Your task to perform on an android device: toggle sleep mode Image 0: 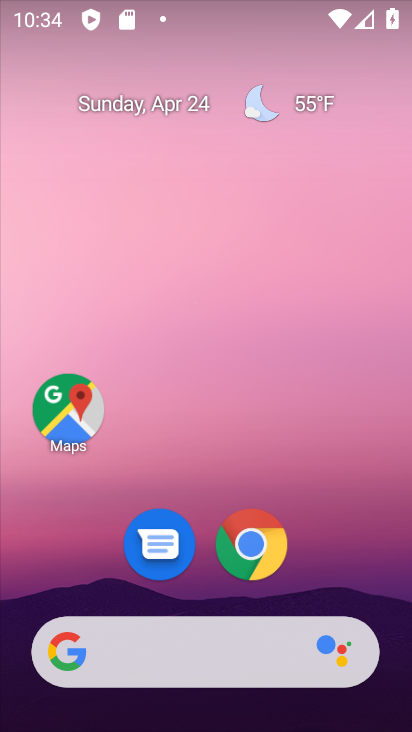
Step 0: drag from (330, 546) to (330, 73)
Your task to perform on an android device: toggle sleep mode Image 1: 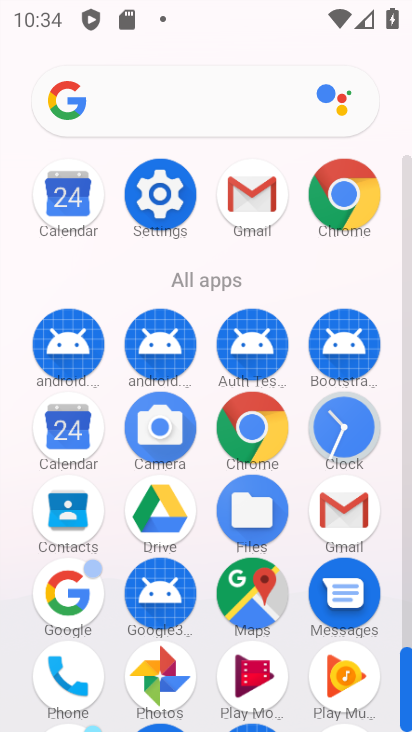
Step 1: click (151, 192)
Your task to perform on an android device: toggle sleep mode Image 2: 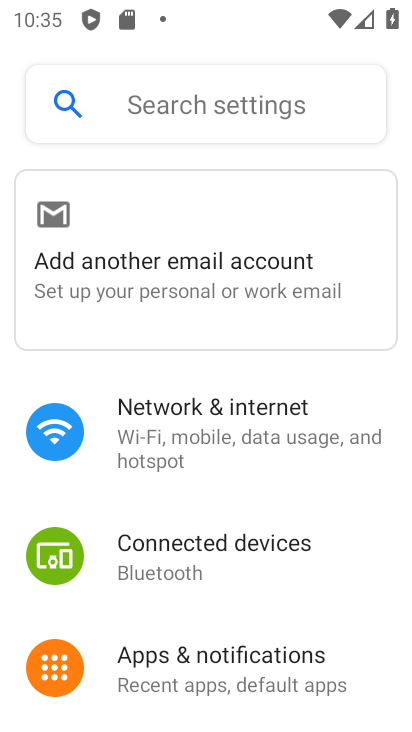
Step 2: drag from (286, 652) to (281, 162)
Your task to perform on an android device: toggle sleep mode Image 3: 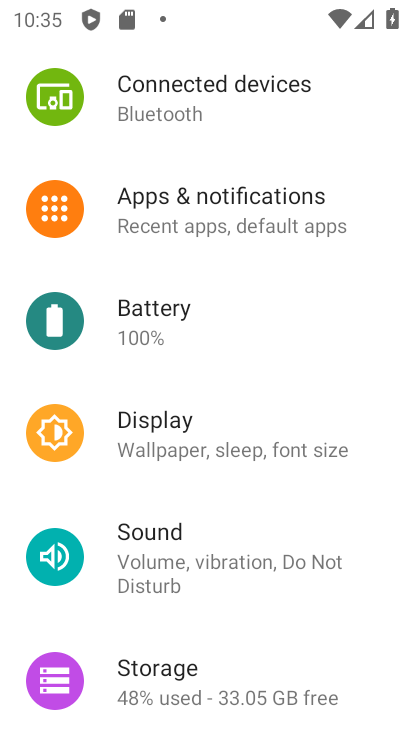
Step 3: click (171, 437)
Your task to perform on an android device: toggle sleep mode Image 4: 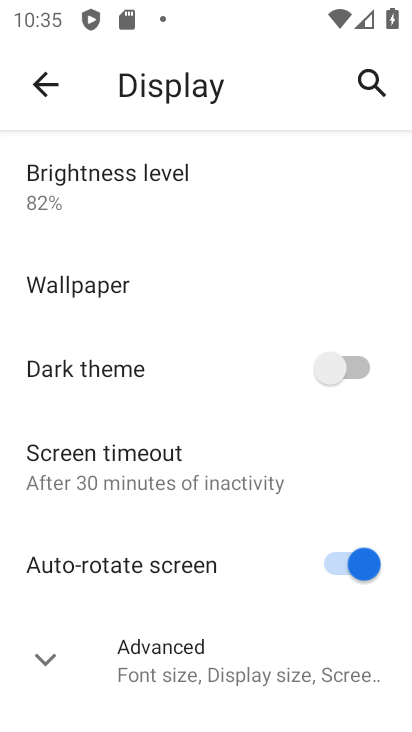
Step 4: click (171, 667)
Your task to perform on an android device: toggle sleep mode Image 5: 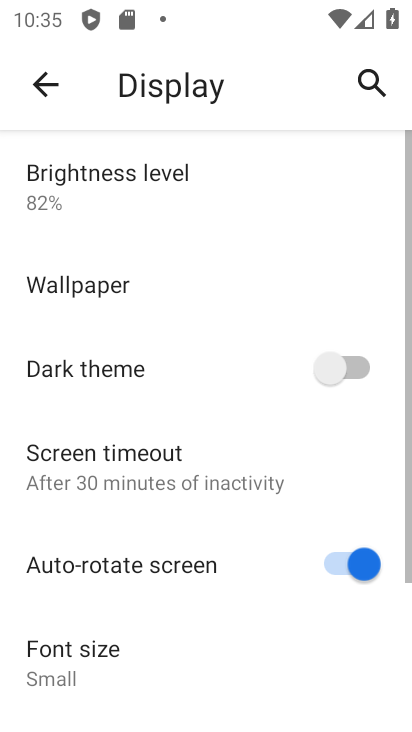
Step 5: task complete